Your task to perform on an android device: toggle improve location accuracy Image 0: 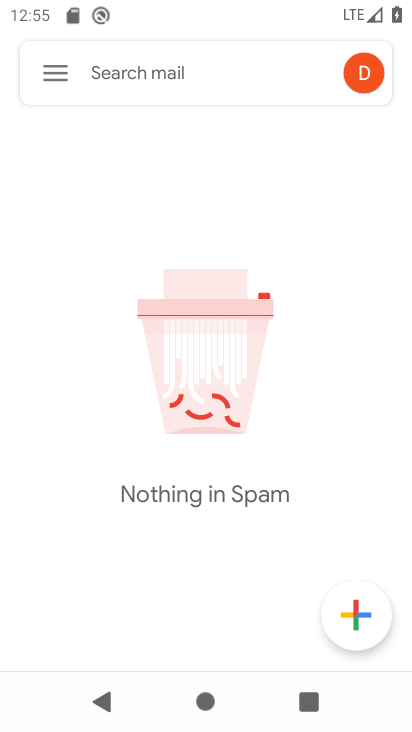
Step 0: press home button
Your task to perform on an android device: toggle improve location accuracy Image 1: 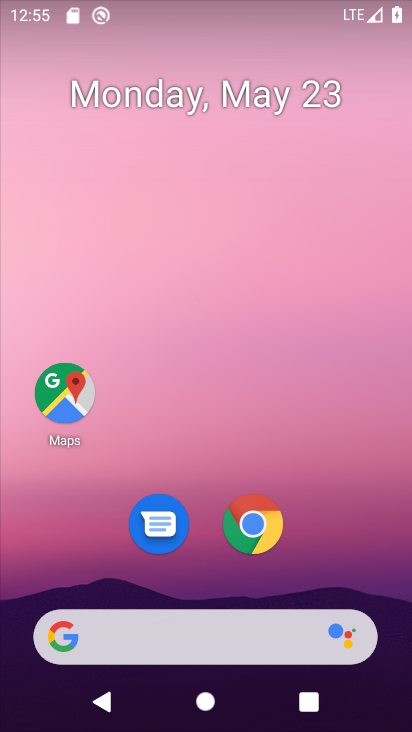
Step 1: drag from (217, 446) to (230, 60)
Your task to perform on an android device: toggle improve location accuracy Image 2: 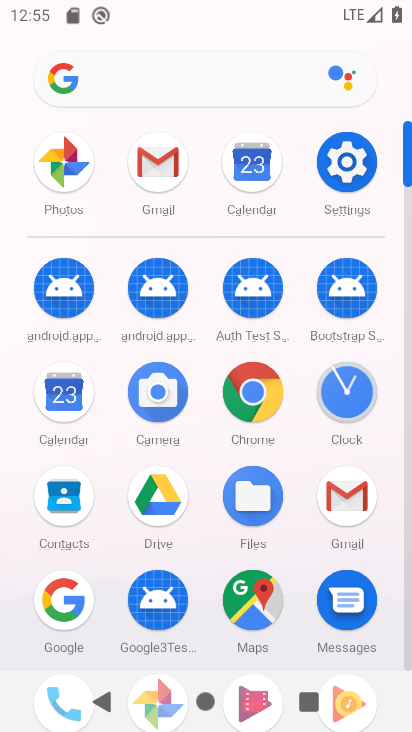
Step 2: click (338, 168)
Your task to perform on an android device: toggle improve location accuracy Image 3: 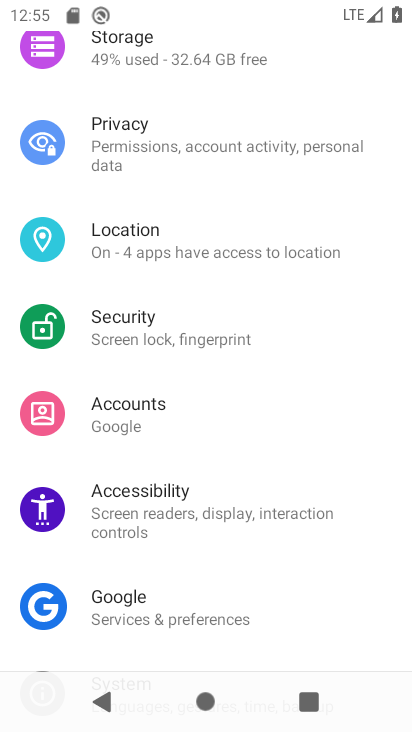
Step 3: click (211, 248)
Your task to perform on an android device: toggle improve location accuracy Image 4: 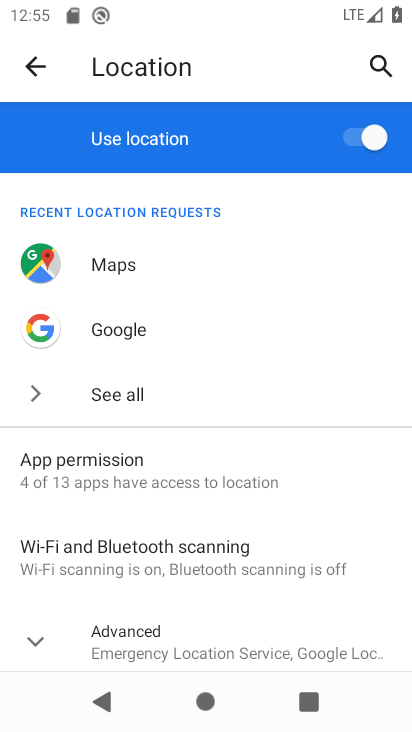
Step 4: click (37, 637)
Your task to perform on an android device: toggle improve location accuracy Image 5: 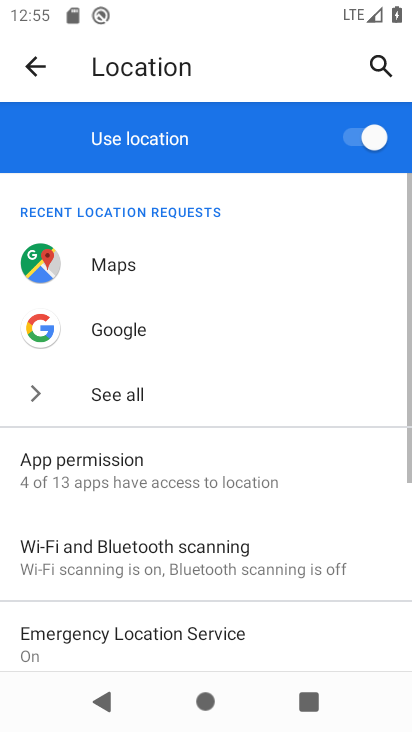
Step 5: drag from (225, 515) to (262, 202)
Your task to perform on an android device: toggle improve location accuracy Image 6: 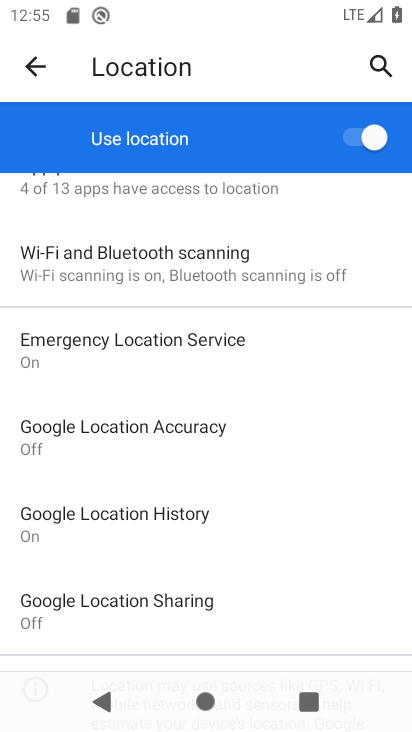
Step 6: click (189, 433)
Your task to perform on an android device: toggle improve location accuracy Image 7: 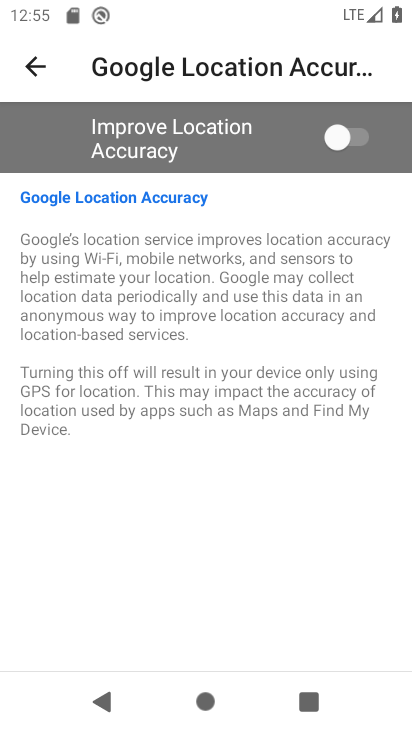
Step 7: click (360, 141)
Your task to perform on an android device: toggle improve location accuracy Image 8: 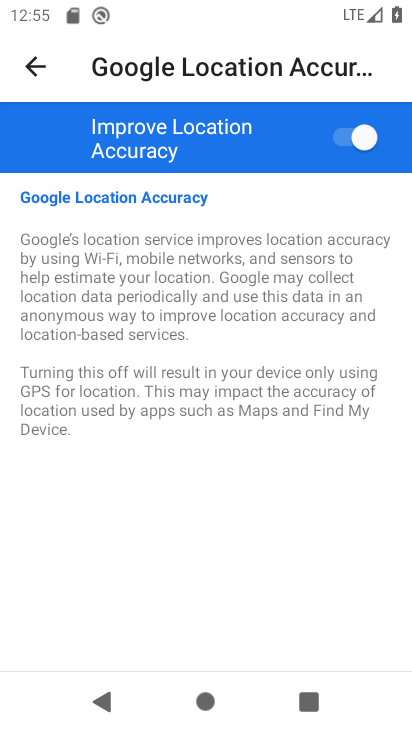
Step 8: task complete